Your task to perform on an android device: Open Google Chrome and open the bookmarks view Image 0: 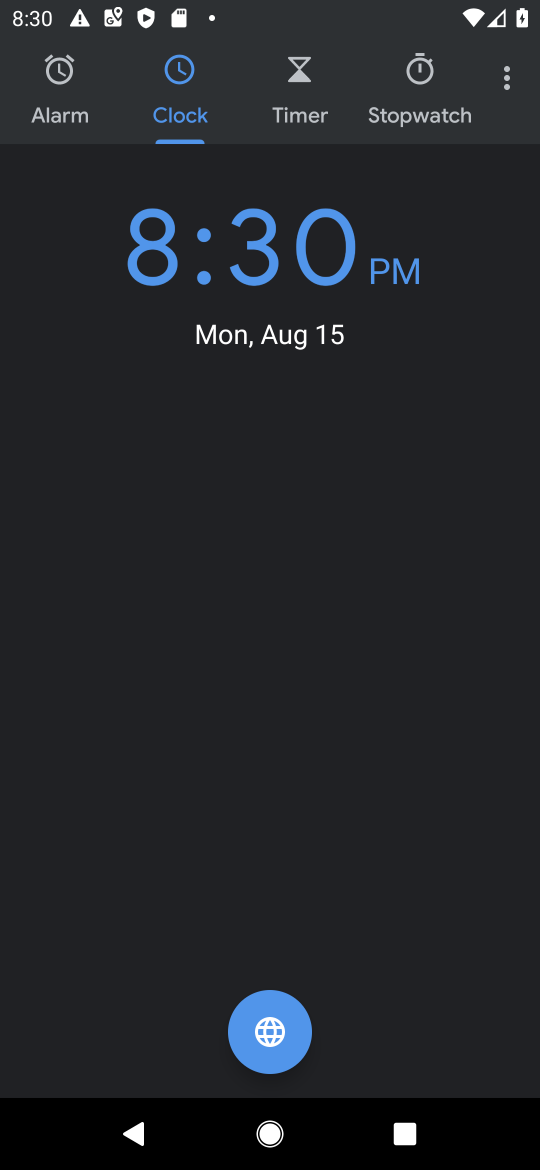
Step 0: press home button
Your task to perform on an android device: Open Google Chrome and open the bookmarks view Image 1: 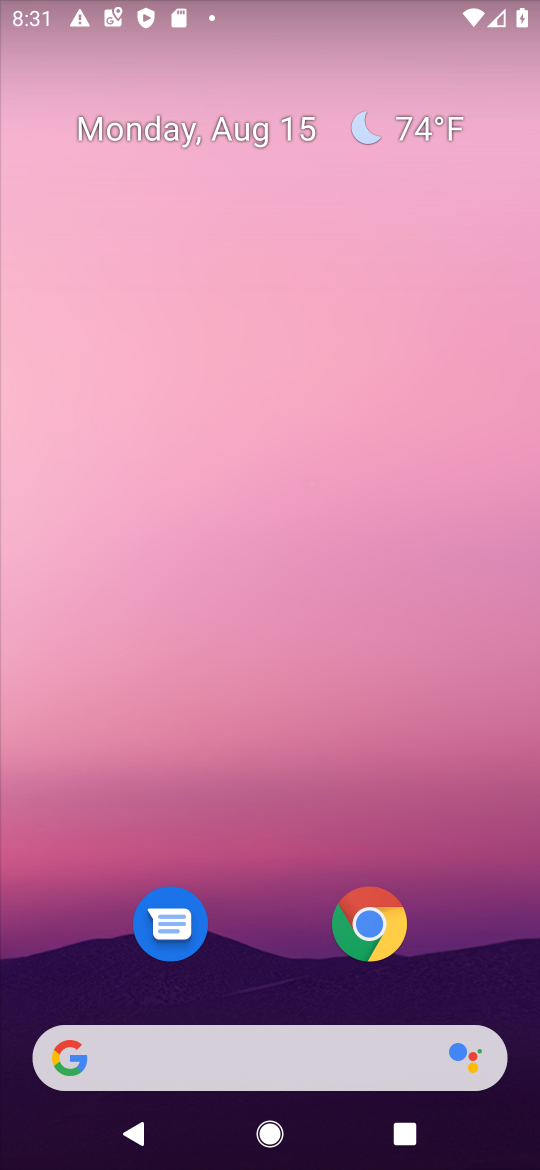
Step 1: click (369, 928)
Your task to perform on an android device: Open Google Chrome and open the bookmarks view Image 2: 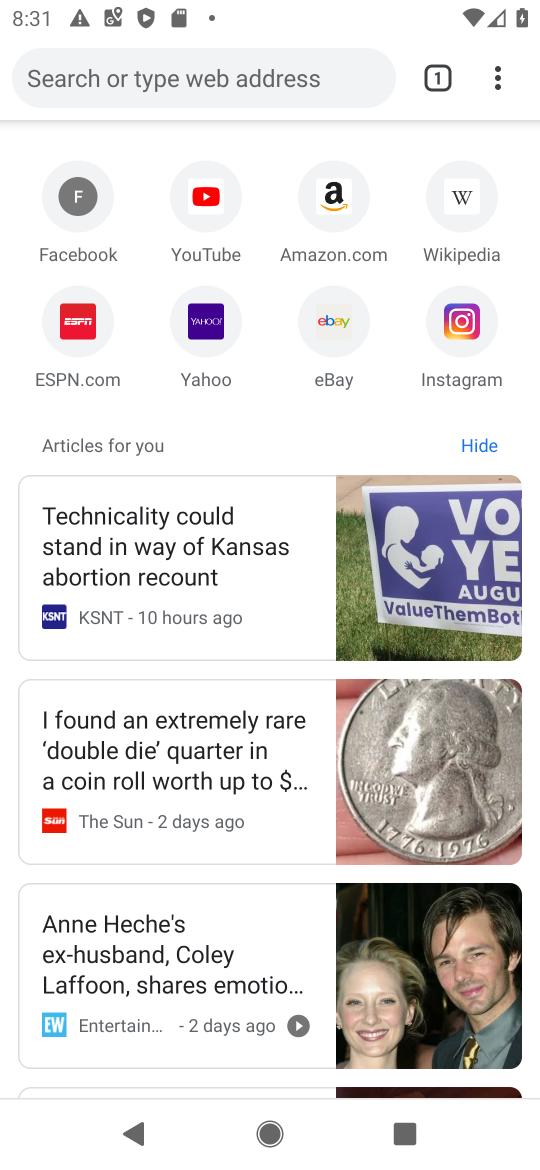
Step 2: click (492, 89)
Your task to perform on an android device: Open Google Chrome and open the bookmarks view Image 3: 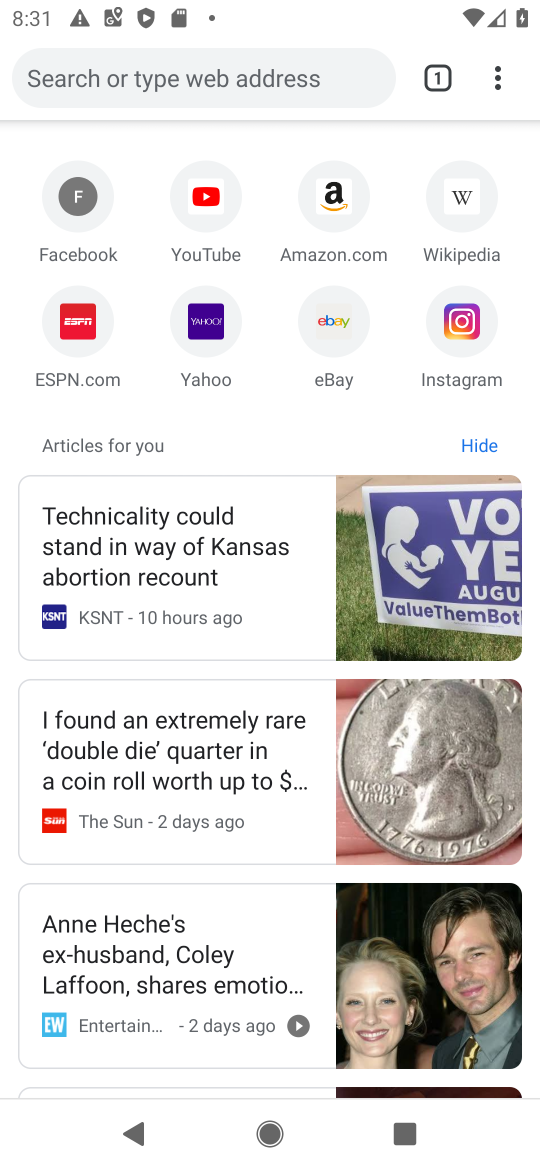
Step 3: click (492, 89)
Your task to perform on an android device: Open Google Chrome and open the bookmarks view Image 4: 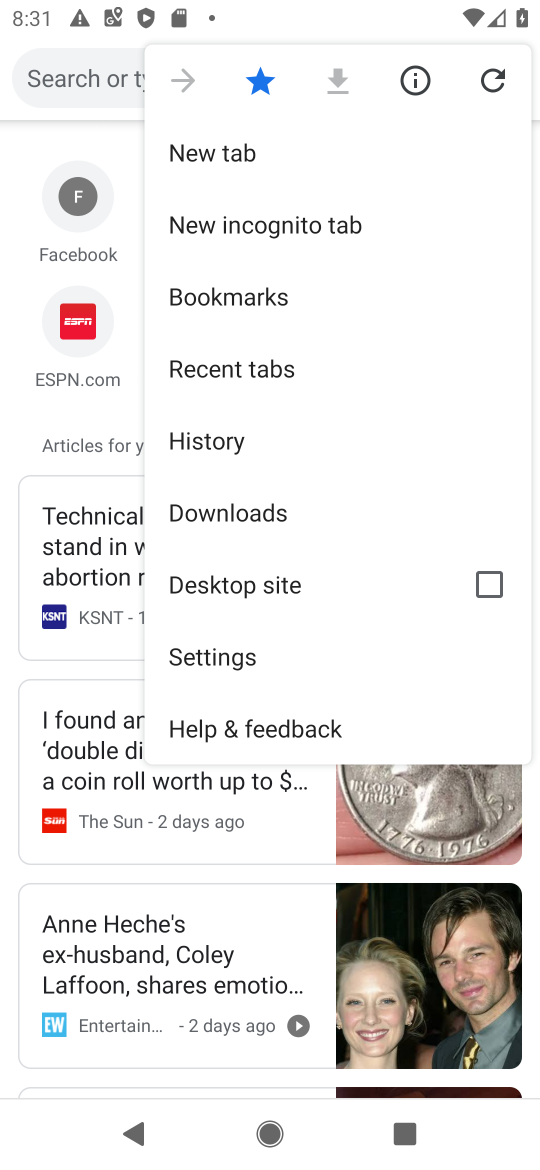
Step 4: click (221, 287)
Your task to perform on an android device: Open Google Chrome and open the bookmarks view Image 5: 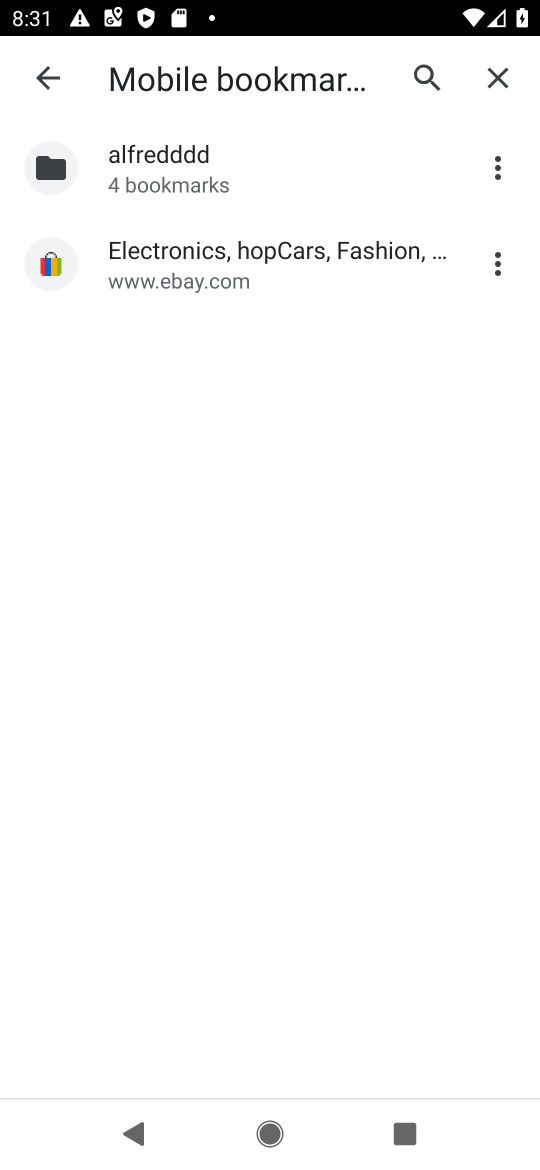
Step 5: task complete